Your task to perform on an android device: Search for vegetarian restaurants on Maps Image 0: 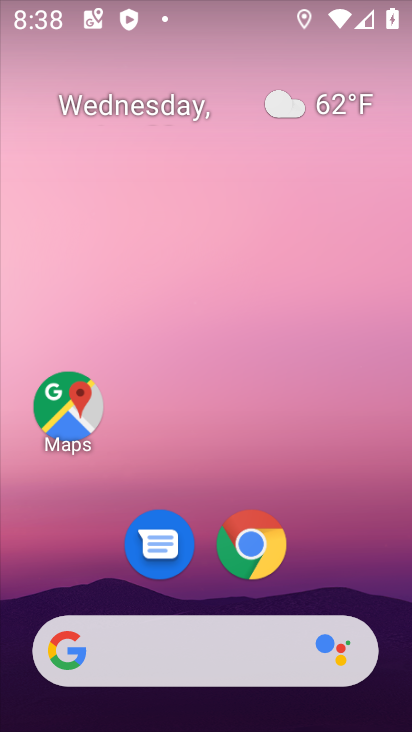
Step 0: click (72, 406)
Your task to perform on an android device: Search for vegetarian restaurants on Maps Image 1: 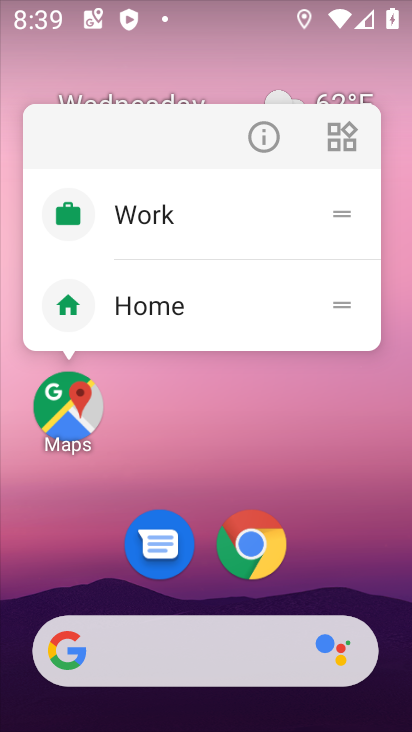
Step 1: click (77, 408)
Your task to perform on an android device: Search for vegetarian restaurants on Maps Image 2: 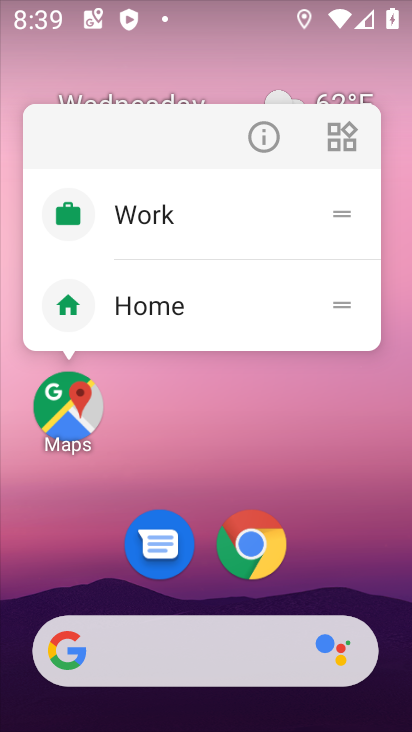
Step 2: click (76, 406)
Your task to perform on an android device: Search for vegetarian restaurants on Maps Image 3: 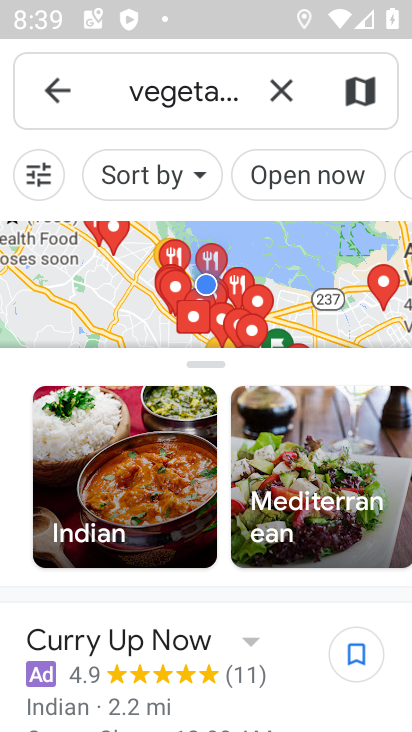
Step 3: task complete